Your task to perform on an android device: Play the new Ed Sheeran video on YouTube Image 0: 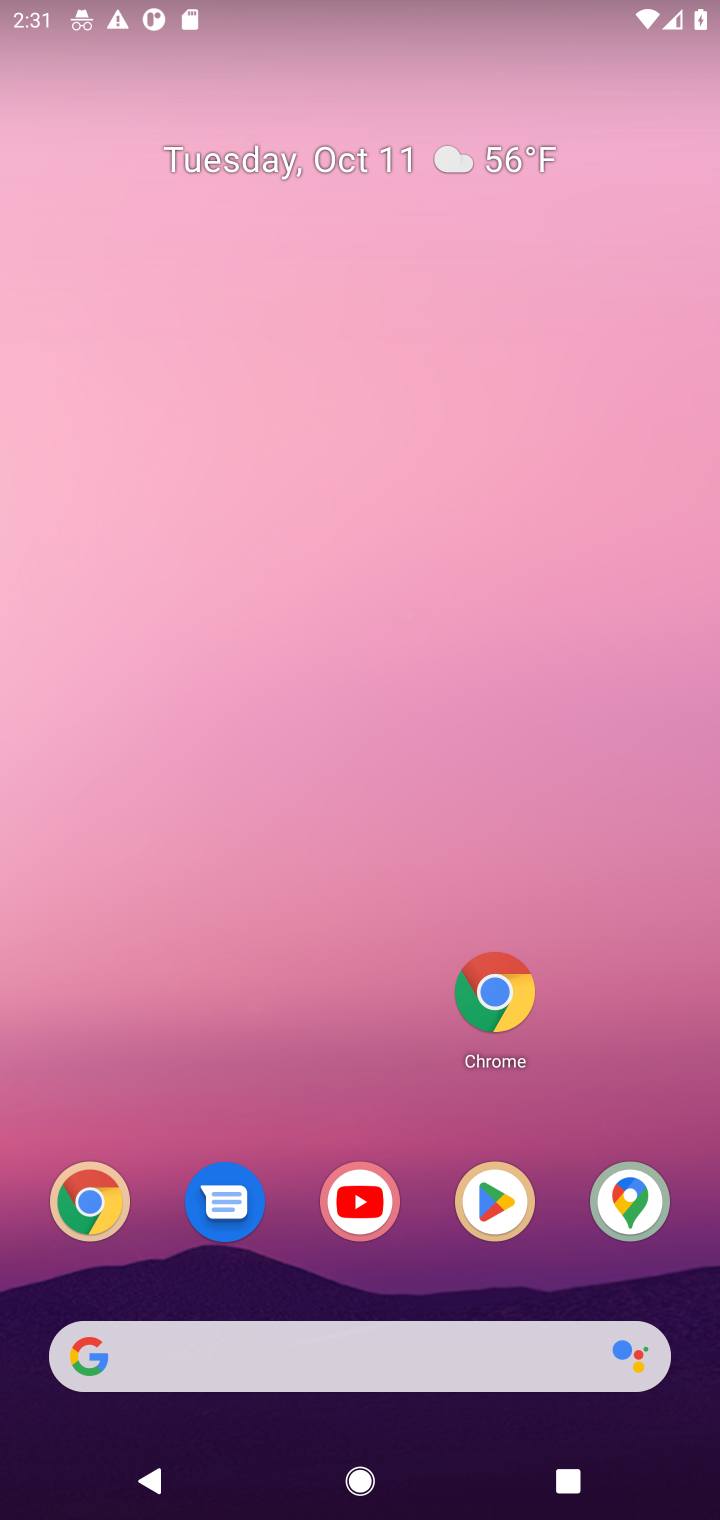
Step 0: click (354, 1192)
Your task to perform on an android device: Play the new Ed Sheeran video on YouTube Image 1: 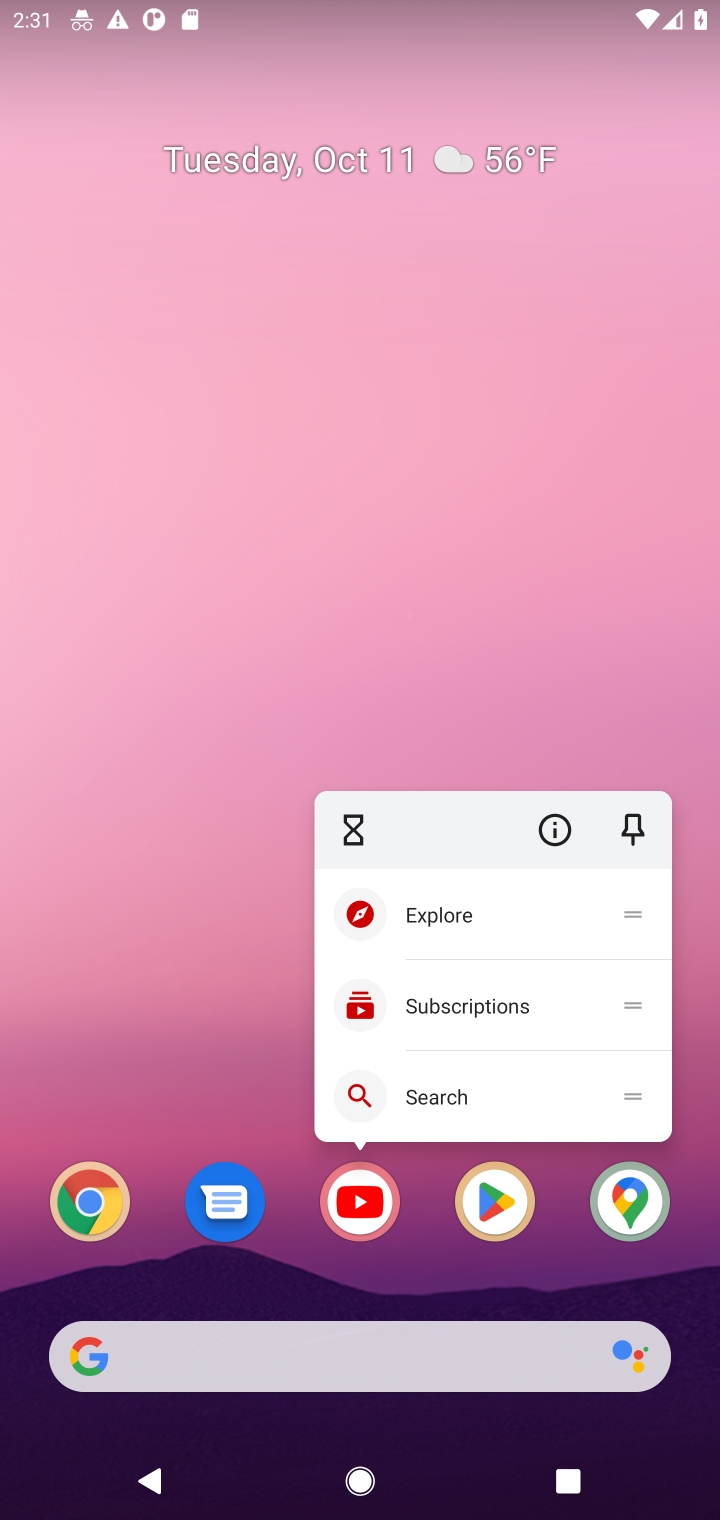
Step 1: click (354, 1196)
Your task to perform on an android device: Play the new Ed Sheeran video on YouTube Image 2: 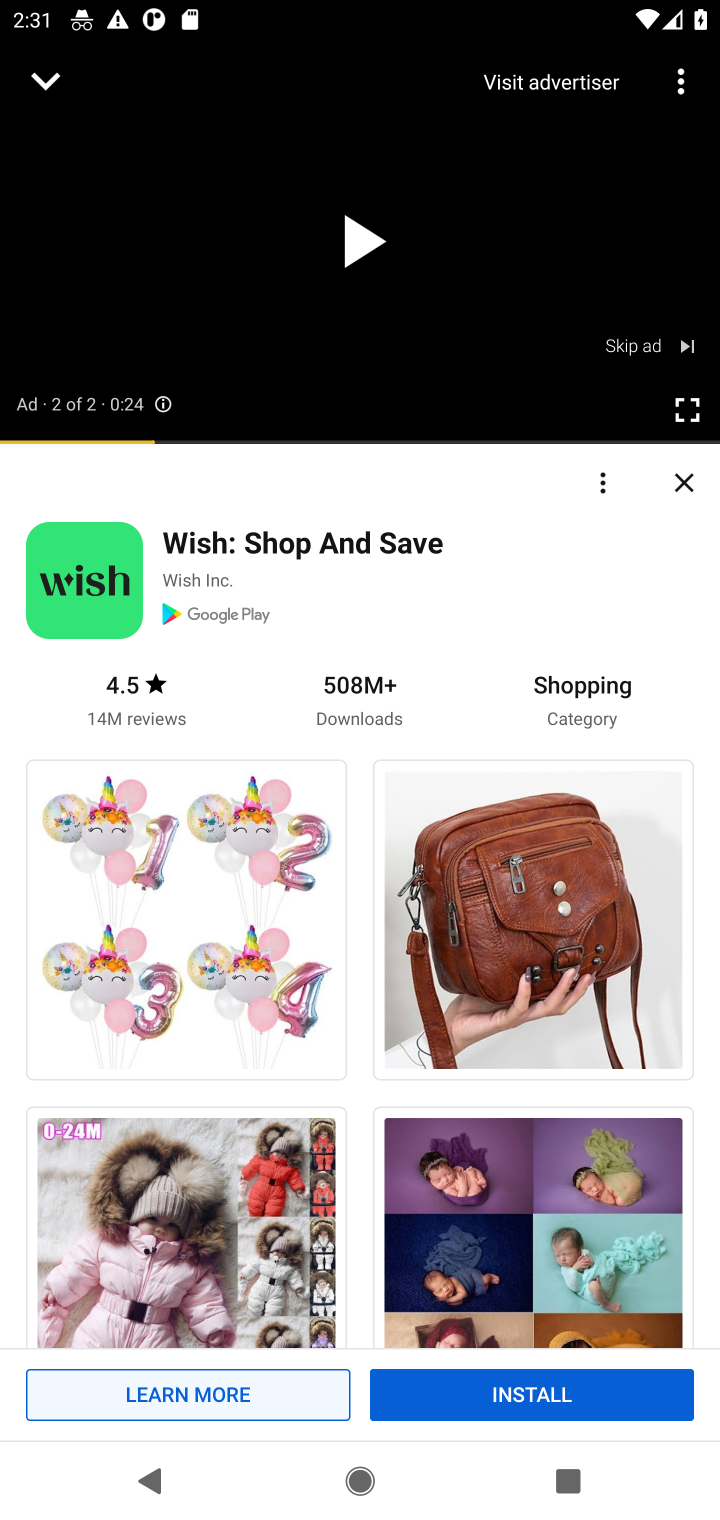
Step 2: press back button
Your task to perform on an android device: Play the new Ed Sheeran video on YouTube Image 3: 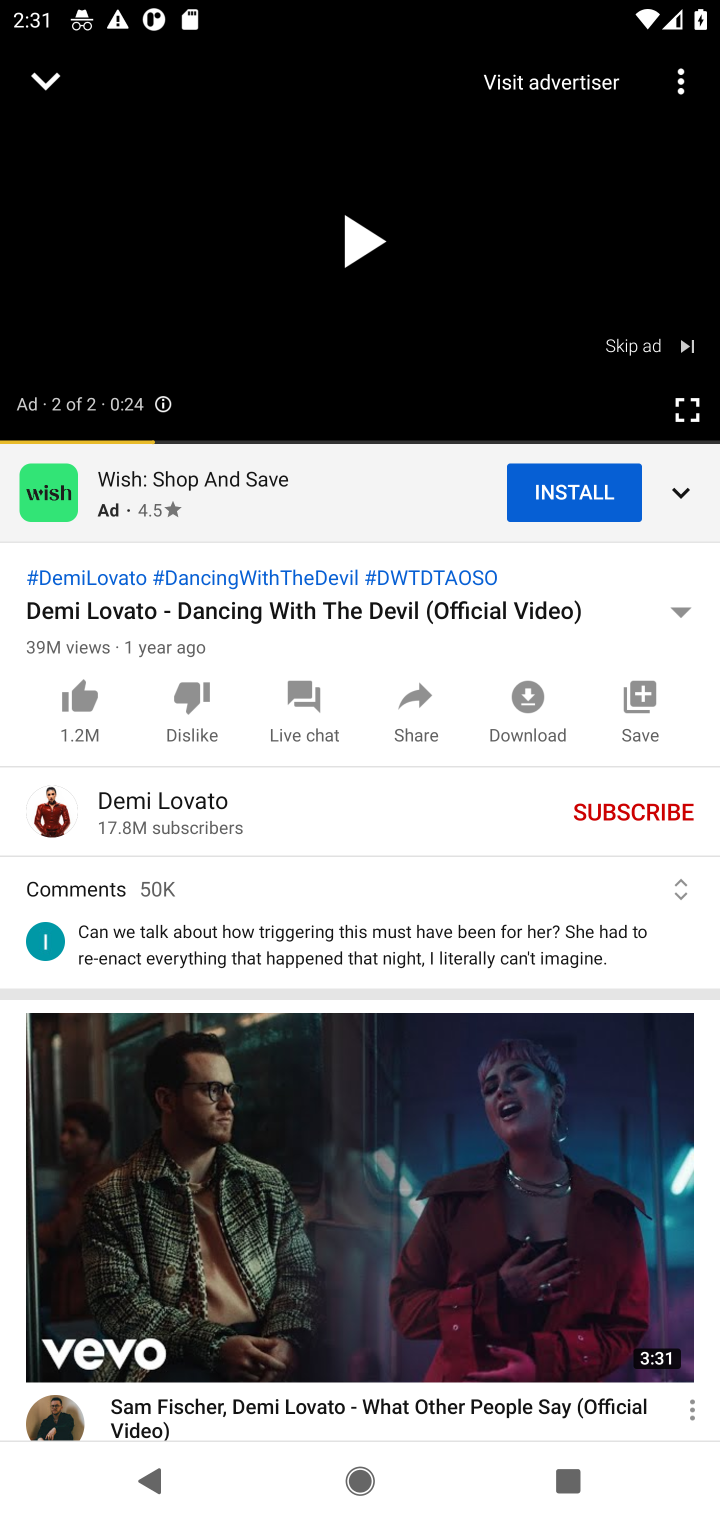
Step 3: press back button
Your task to perform on an android device: Play the new Ed Sheeran video on YouTube Image 4: 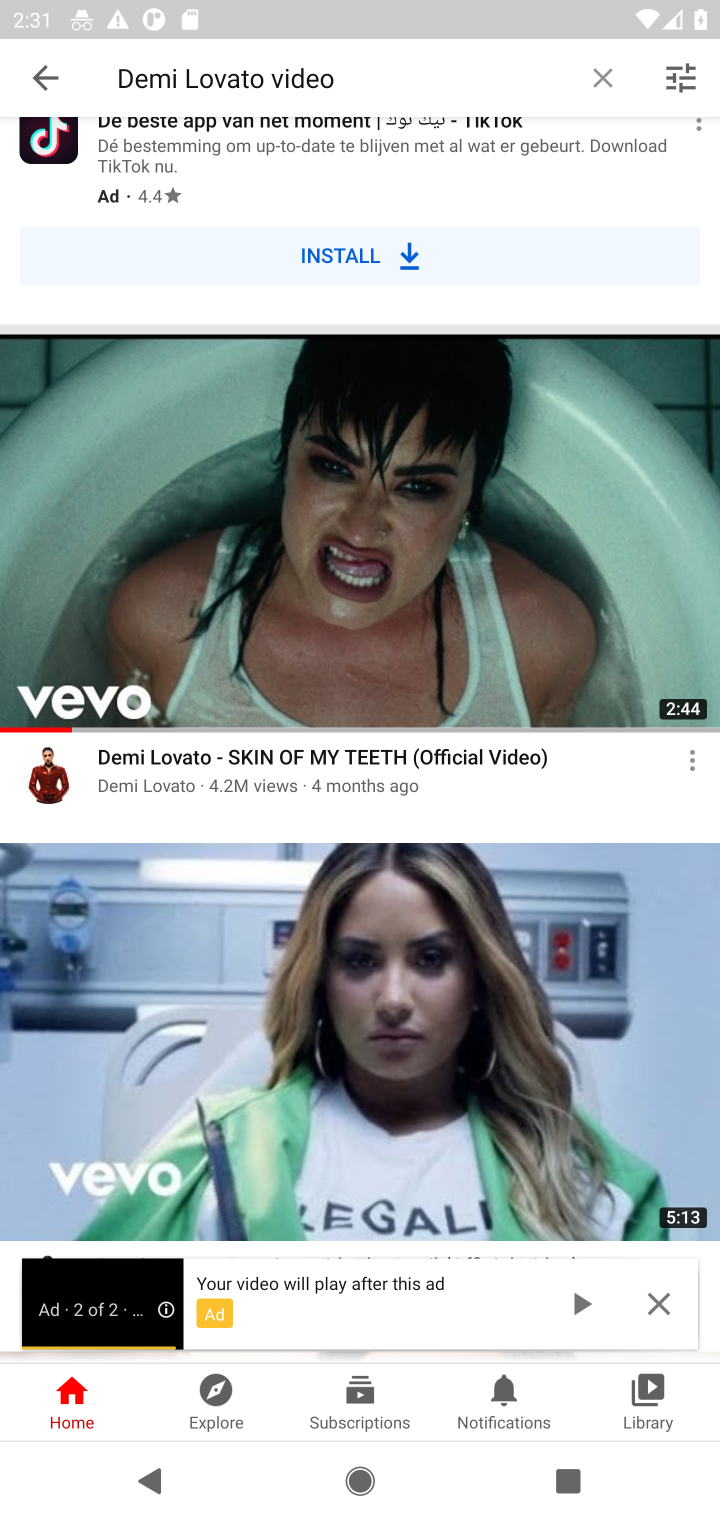
Step 4: click (600, 66)
Your task to perform on an android device: Play the new Ed Sheeran video on YouTube Image 5: 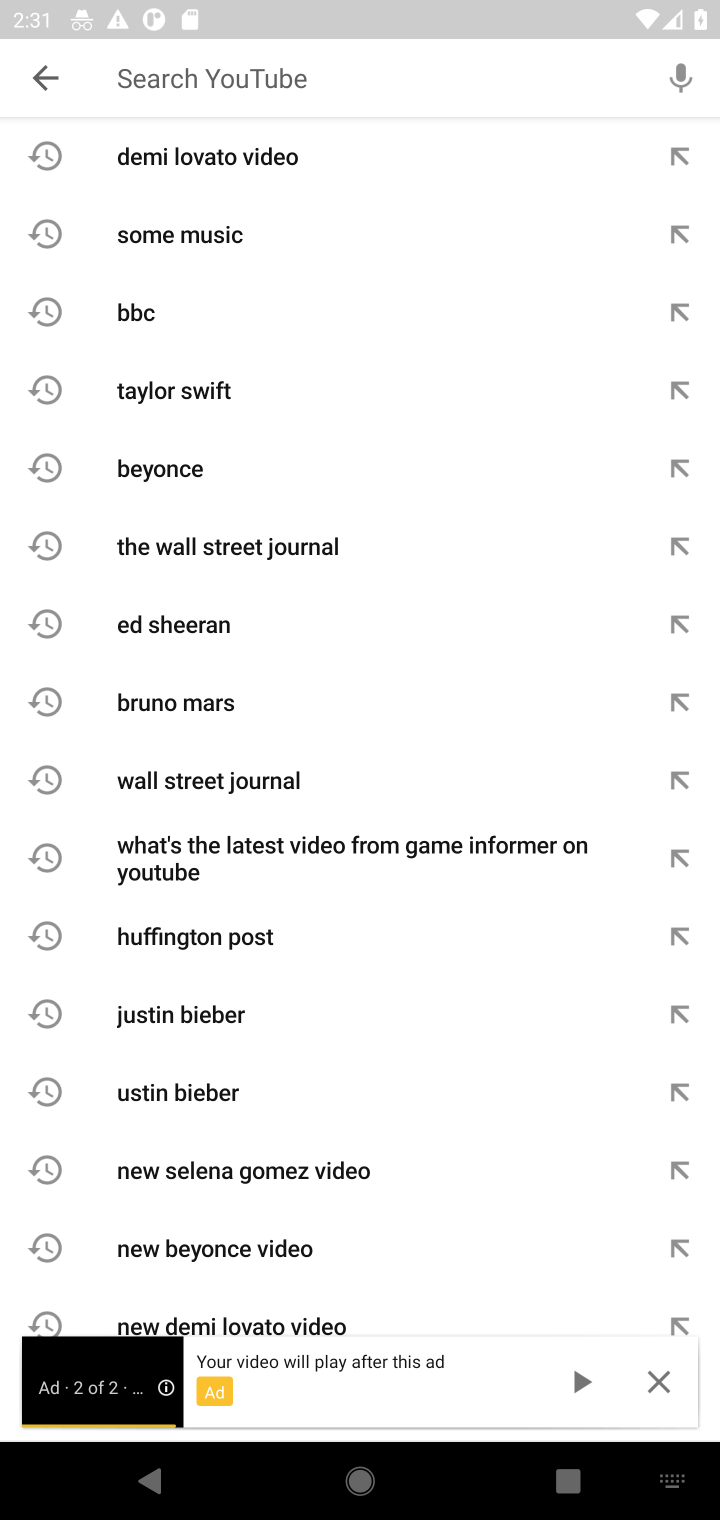
Step 5: type " new Ed Sheeran"
Your task to perform on an android device: Play the new Ed Sheeran video on YouTube Image 6: 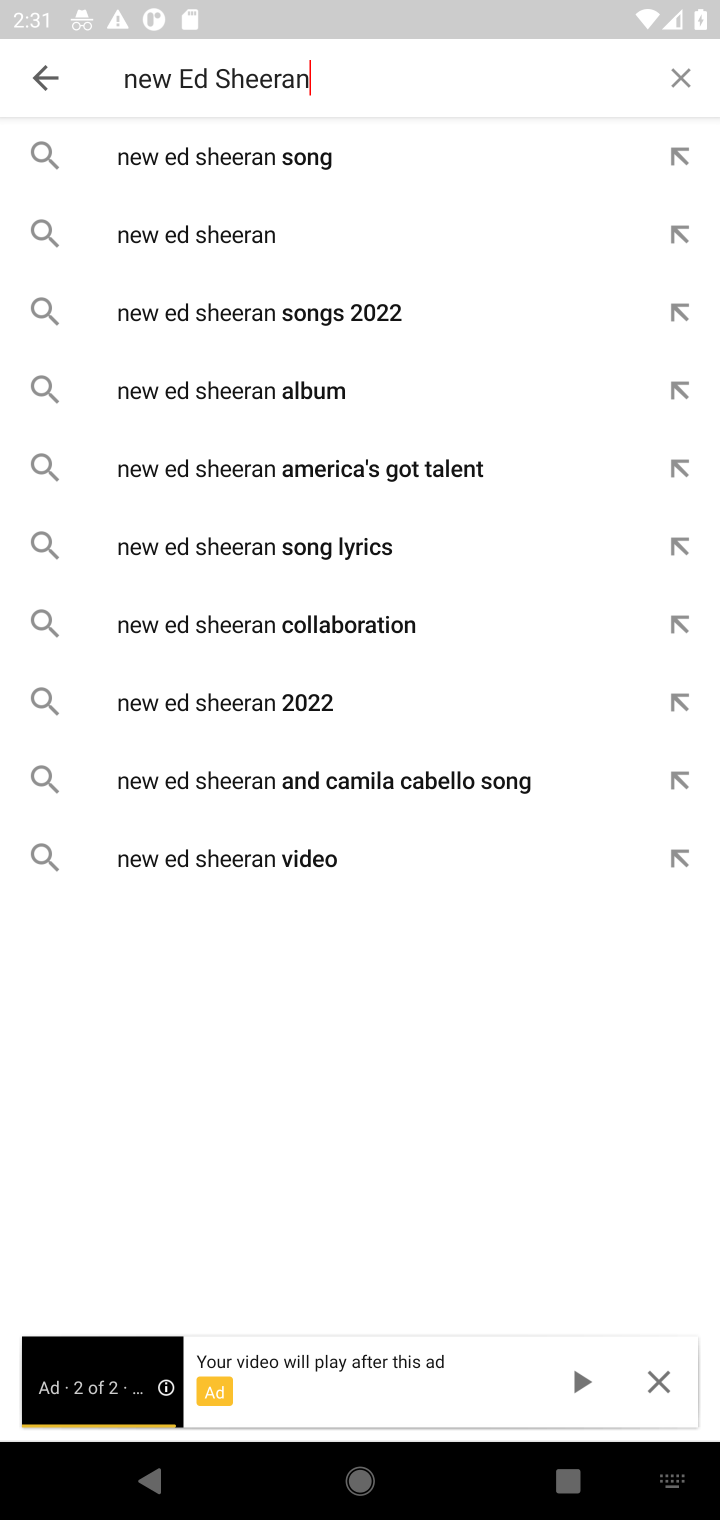
Step 6: press enter
Your task to perform on an android device: Play the new Ed Sheeran video on YouTube Image 7: 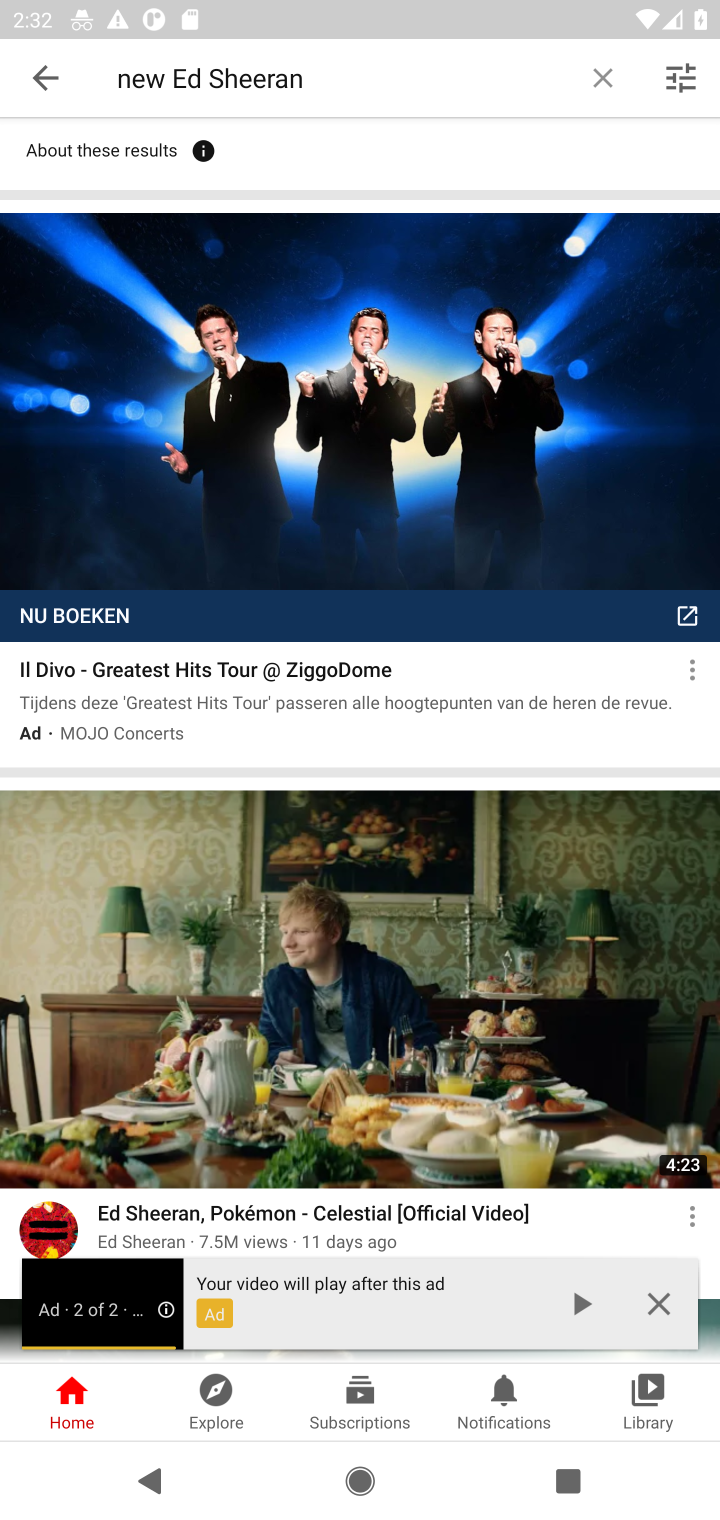
Step 7: click (351, 1017)
Your task to perform on an android device: Play the new Ed Sheeran video on YouTube Image 8: 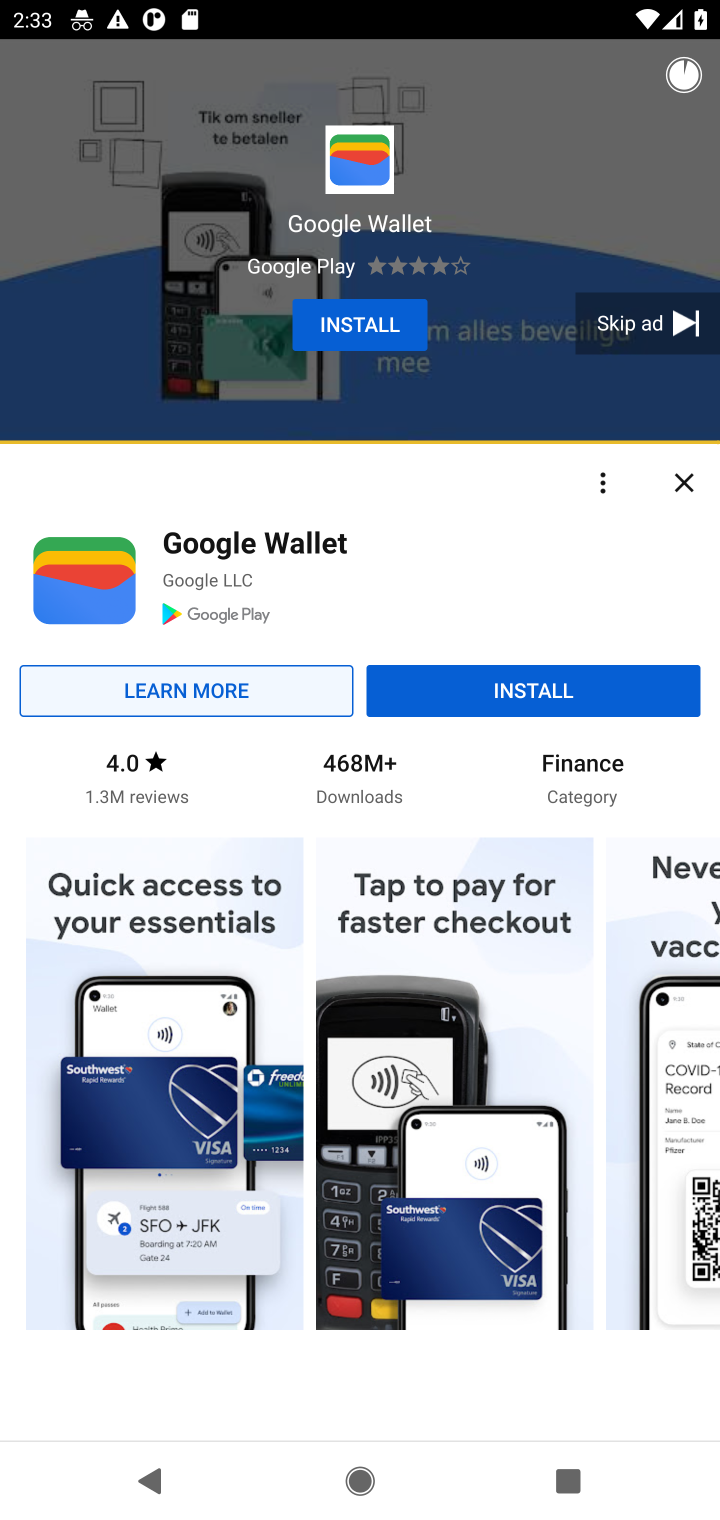
Step 8: click (636, 356)
Your task to perform on an android device: Play the new Ed Sheeran video on YouTube Image 9: 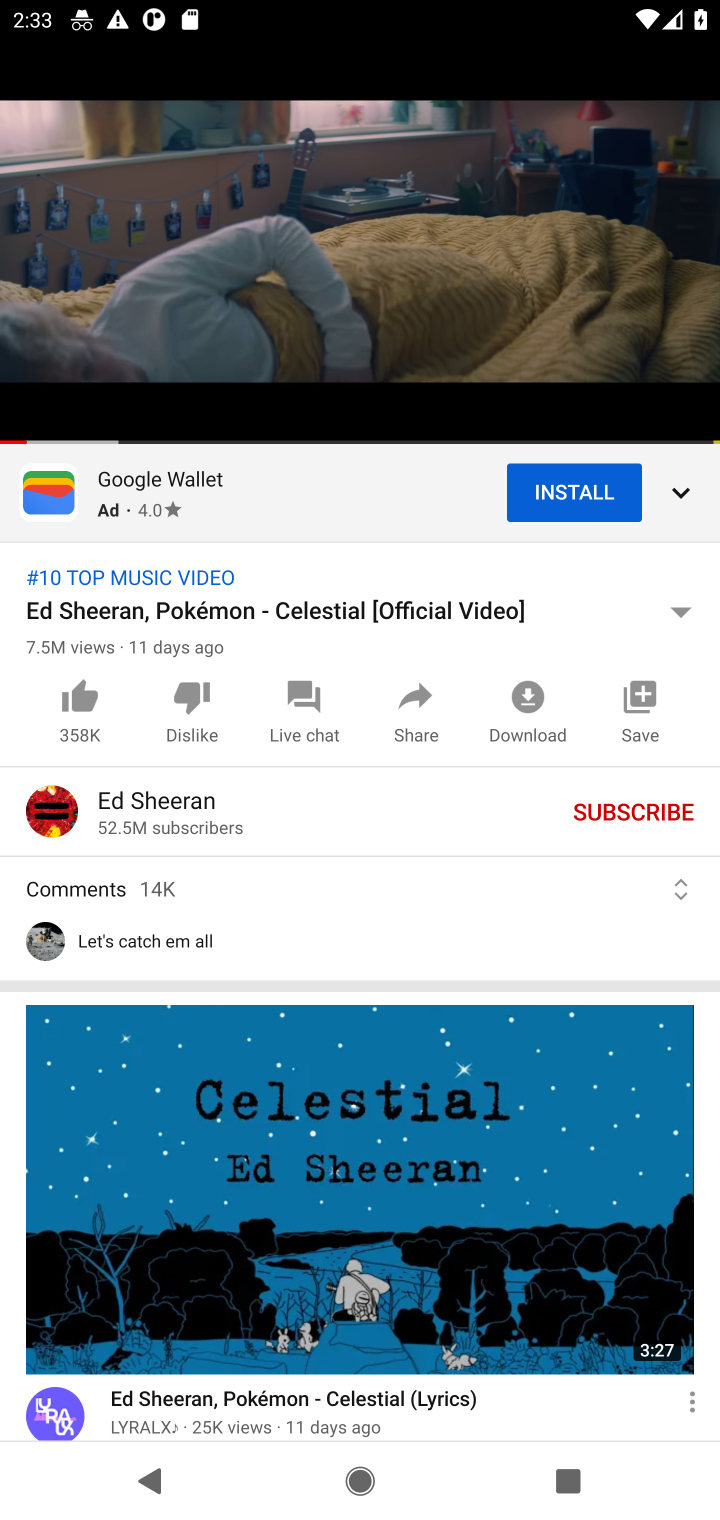
Step 9: click (377, 293)
Your task to perform on an android device: Play the new Ed Sheeran video on YouTube Image 10: 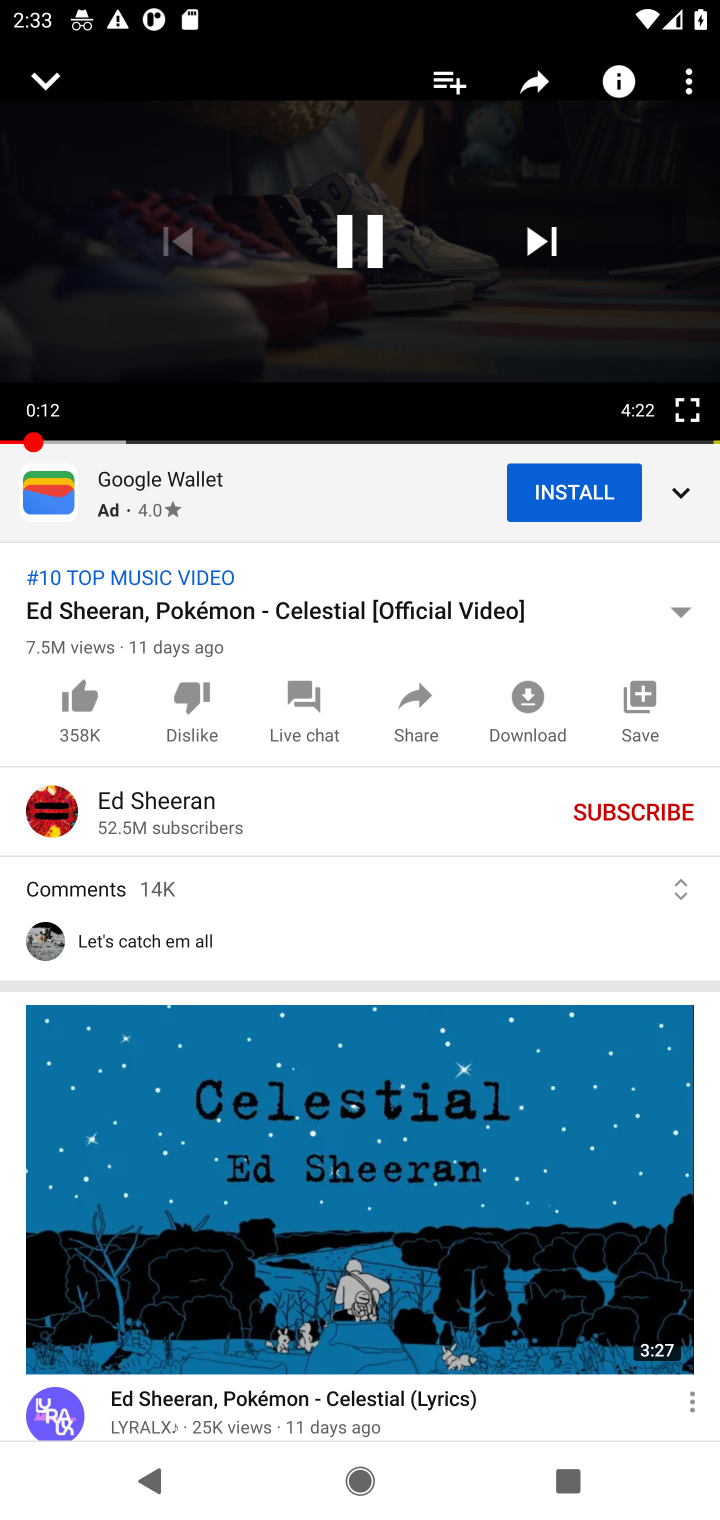
Step 10: click (359, 262)
Your task to perform on an android device: Play the new Ed Sheeran video on YouTube Image 11: 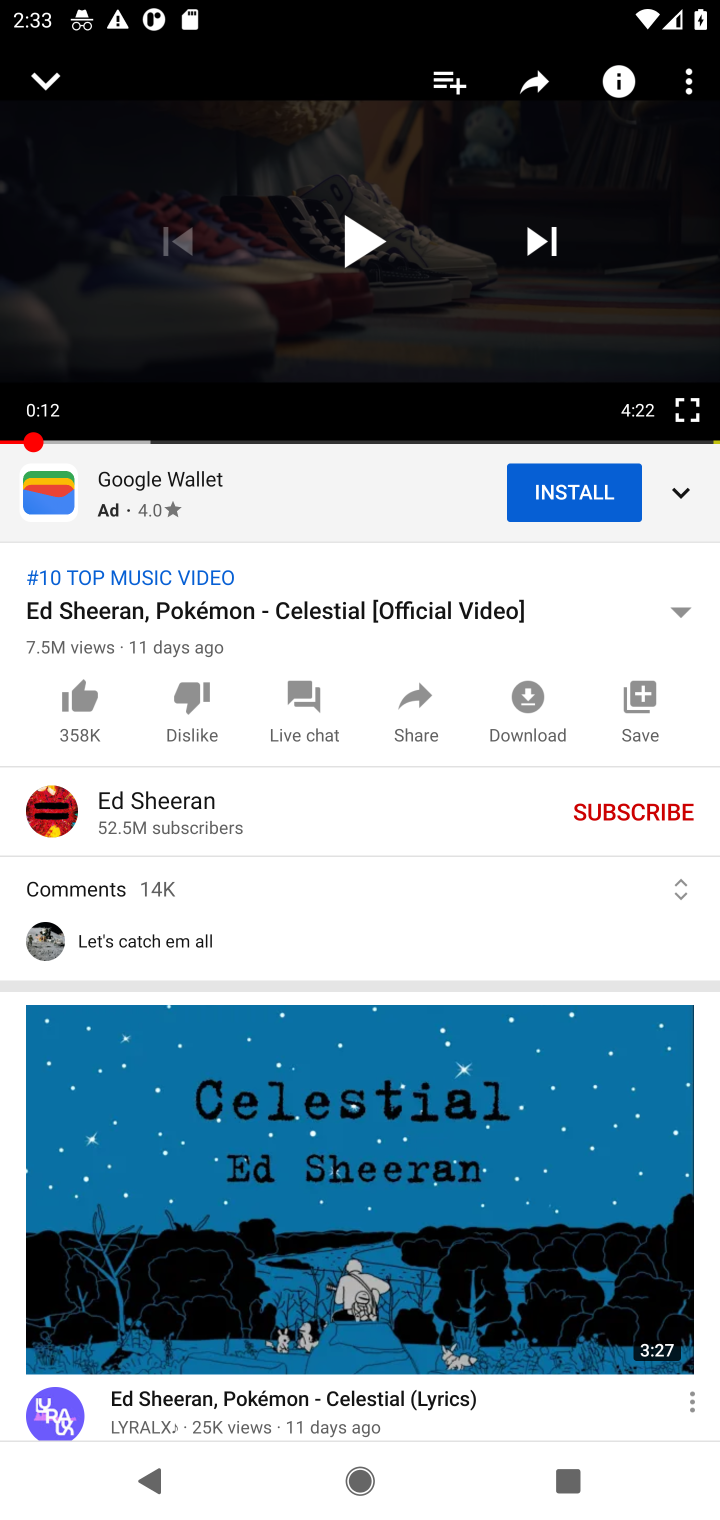
Step 11: task complete